Your task to perform on an android device: Check the weather Image 0: 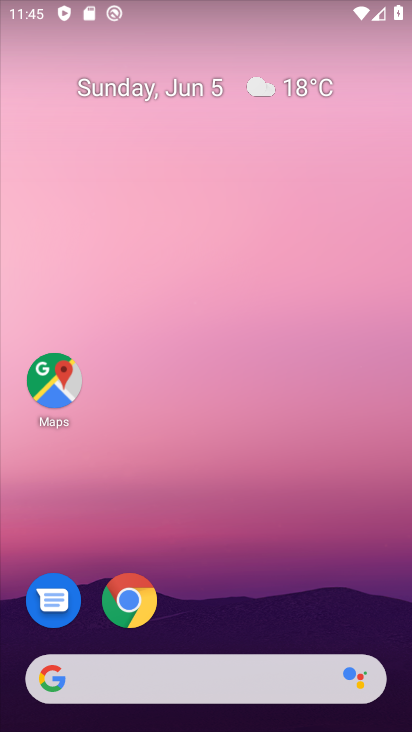
Step 0: drag from (219, 657) to (72, 7)
Your task to perform on an android device: Check the weather Image 1: 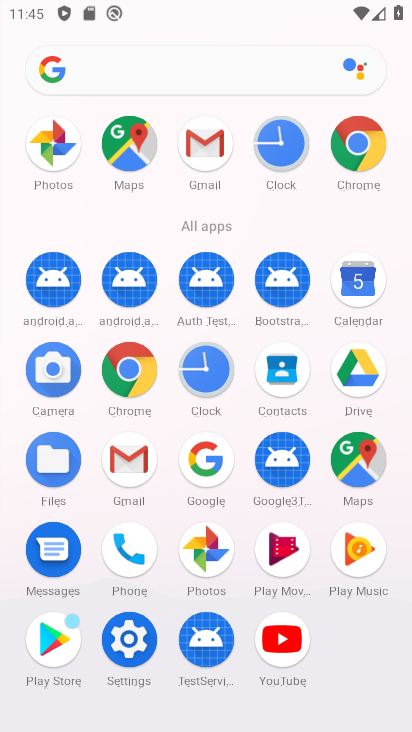
Step 1: task complete